Your task to perform on an android device: Do I have any events this weekend? Image 0: 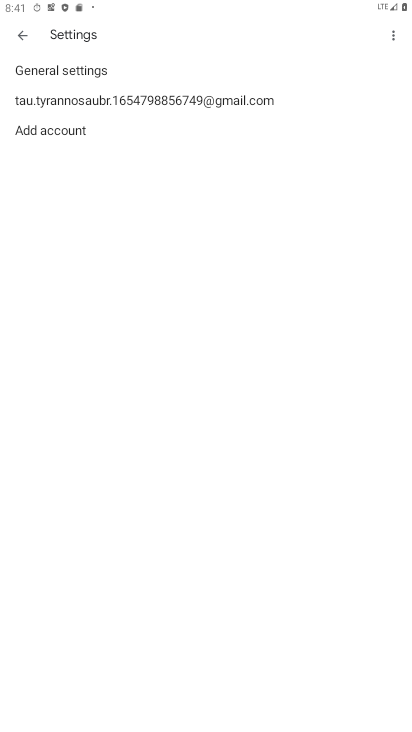
Step 0: press home button
Your task to perform on an android device: Do I have any events this weekend? Image 1: 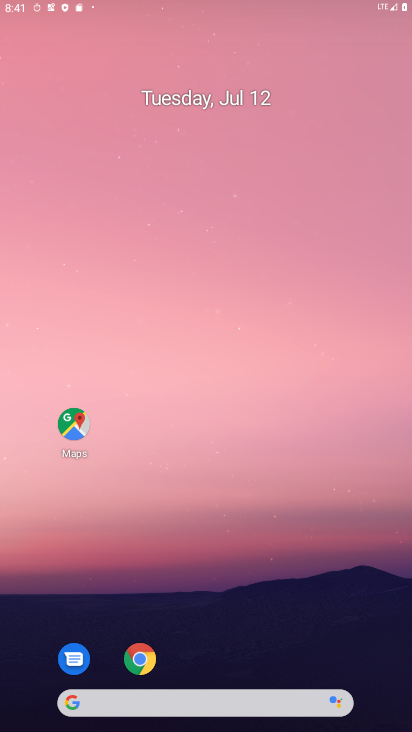
Step 1: drag from (381, 644) to (179, 34)
Your task to perform on an android device: Do I have any events this weekend? Image 2: 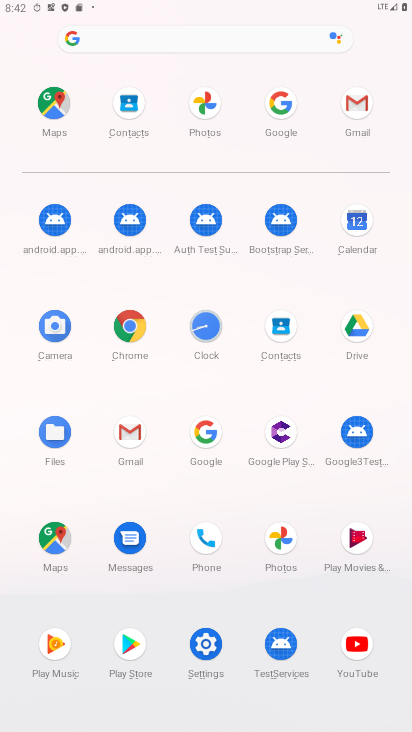
Step 2: click (351, 102)
Your task to perform on an android device: Do I have any events this weekend? Image 3: 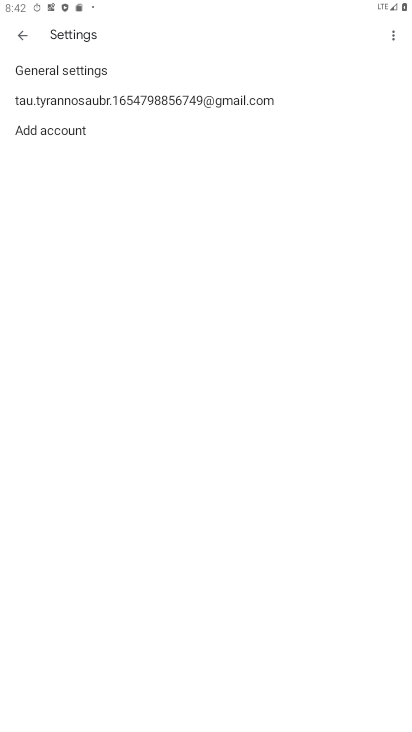
Step 3: task complete